Your task to perform on an android device: turn notification dots on Image 0: 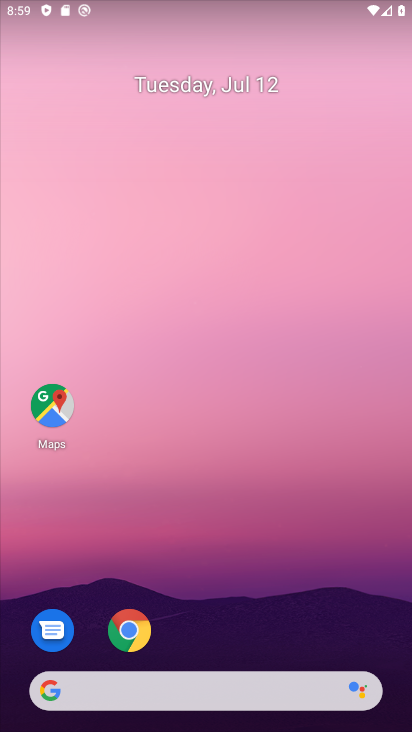
Step 0: drag from (268, 464) to (275, 141)
Your task to perform on an android device: turn notification dots on Image 1: 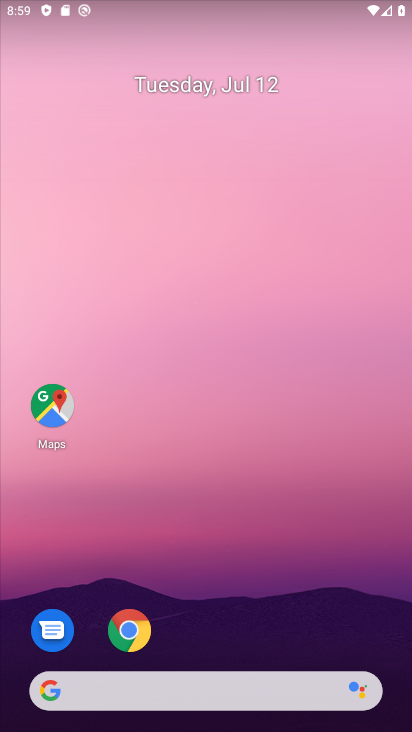
Step 1: drag from (266, 43) to (263, 92)
Your task to perform on an android device: turn notification dots on Image 2: 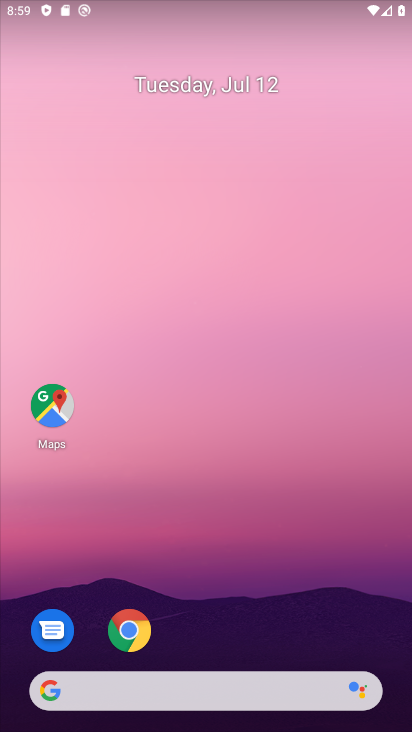
Step 2: drag from (220, 582) to (245, 139)
Your task to perform on an android device: turn notification dots on Image 3: 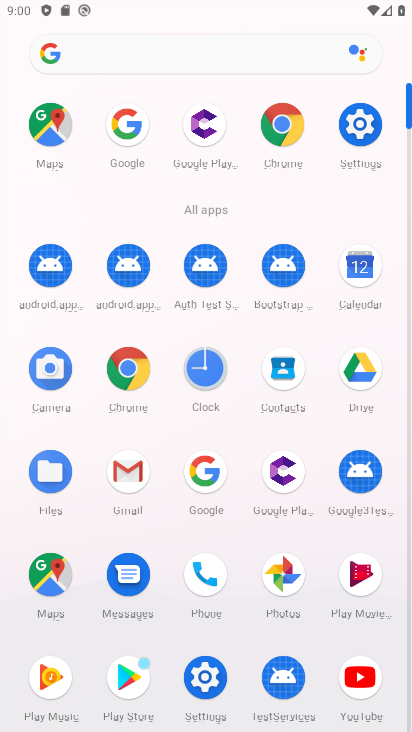
Step 3: click (370, 130)
Your task to perform on an android device: turn notification dots on Image 4: 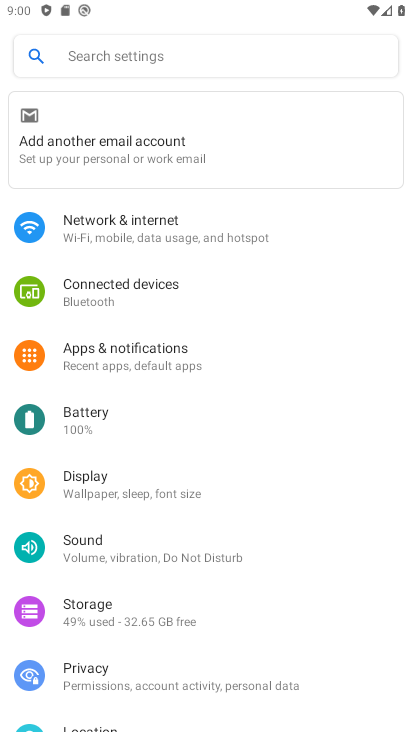
Step 4: click (145, 351)
Your task to perform on an android device: turn notification dots on Image 5: 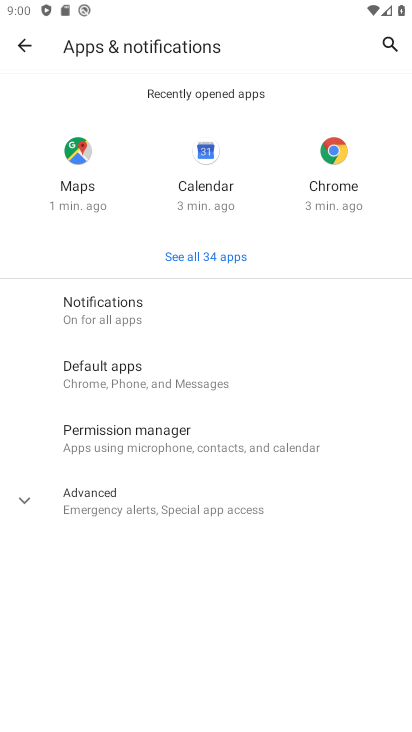
Step 5: click (116, 312)
Your task to perform on an android device: turn notification dots on Image 6: 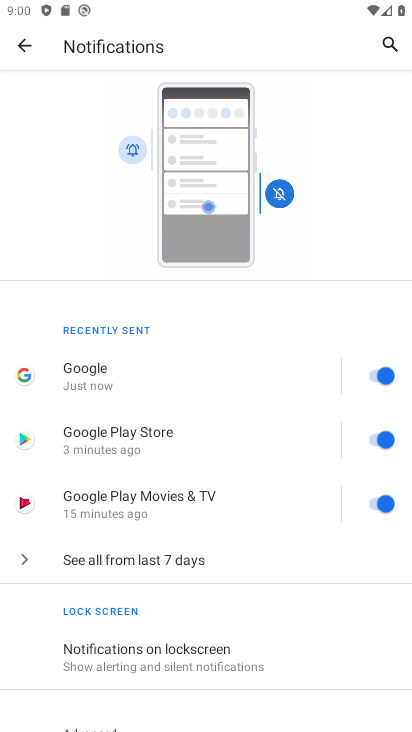
Step 6: drag from (211, 642) to (226, 127)
Your task to perform on an android device: turn notification dots on Image 7: 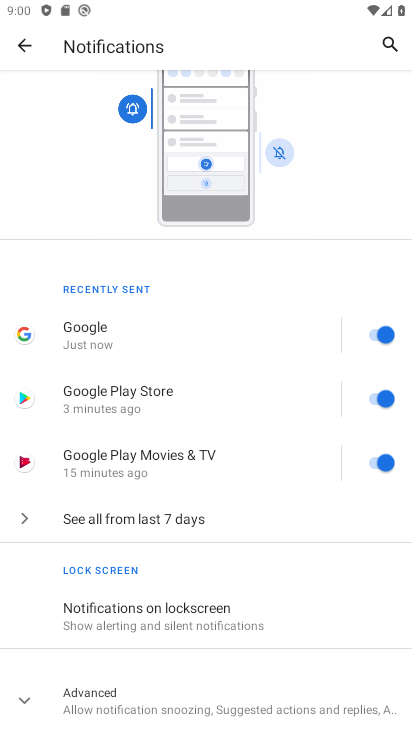
Step 7: click (179, 722)
Your task to perform on an android device: turn notification dots on Image 8: 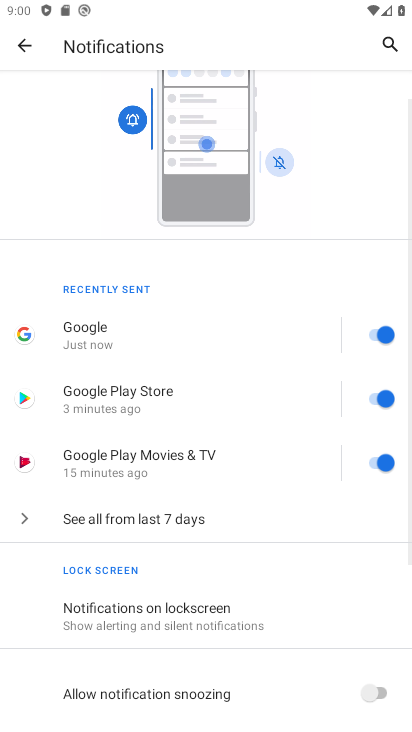
Step 8: task complete